Your task to perform on an android device: Open Youtube and go to "Your channel" Image 0: 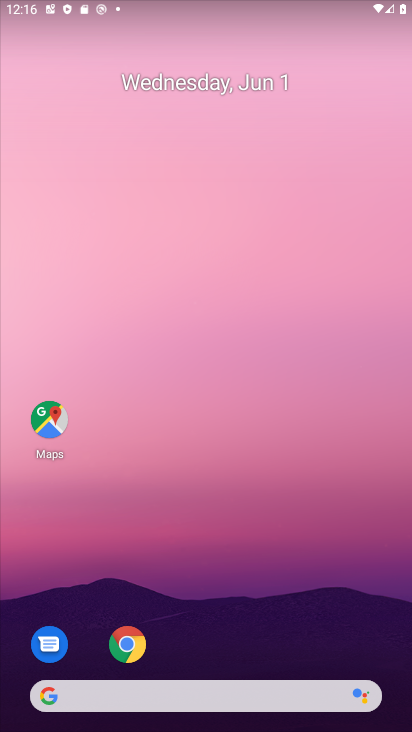
Step 0: drag from (341, 618) to (291, 206)
Your task to perform on an android device: Open Youtube and go to "Your channel" Image 1: 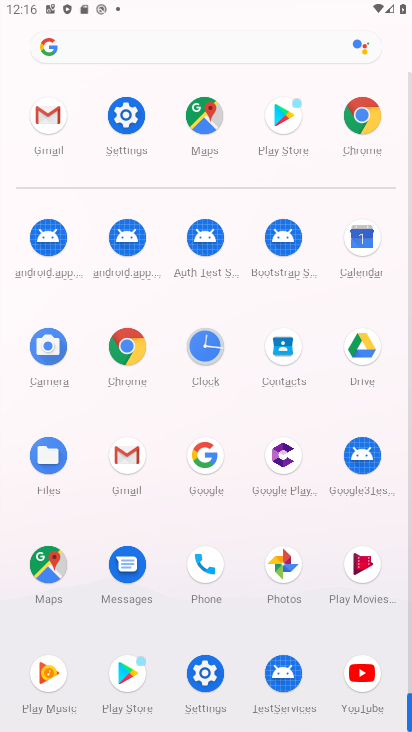
Step 1: click (353, 674)
Your task to perform on an android device: Open Youtube and go to "Your channel" Image 2: 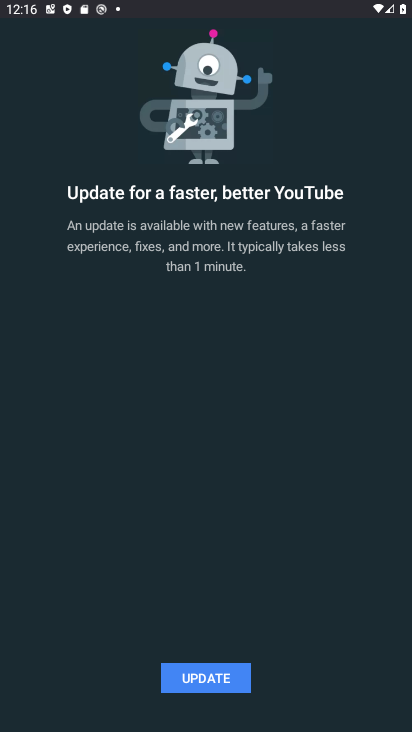
Step 2: click (234, 674)
Your task to perform on an android device: Open Youtube and go to "Your channel" Image 3: 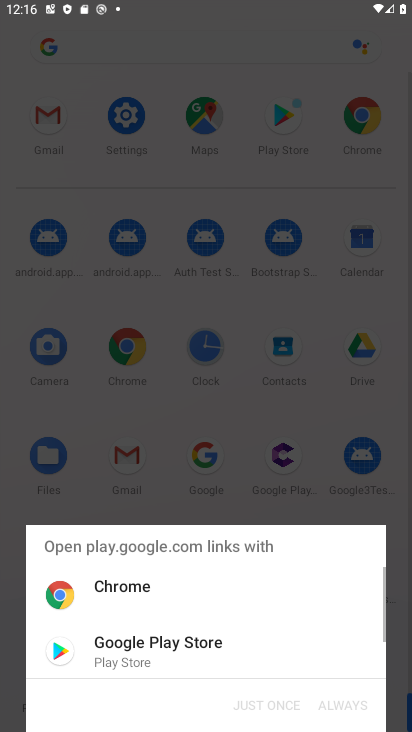
Step 3: click (139, 661)
Your task to perform on an android device: Open Youtube and go to "Your channel" Image 4: 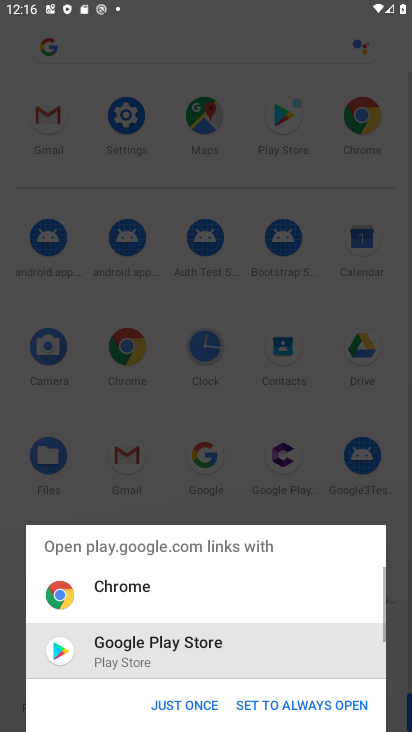
Step 4: click (168, 705)
Your task to perform on an android device: Open Youtube and go to "Your channel" Image 5: 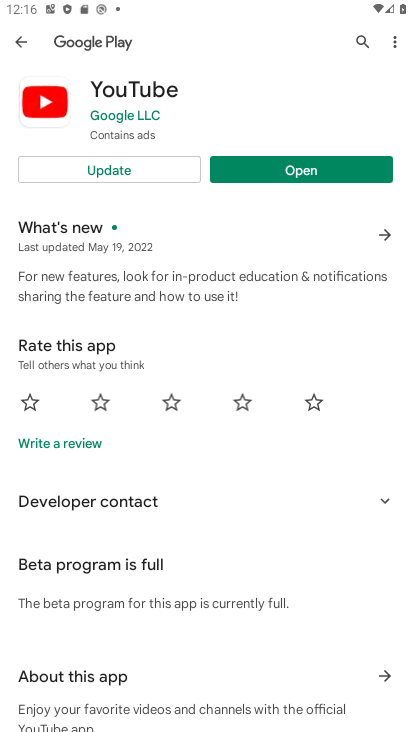
Step 5: click (141, 172)
Your task to perform on an android device: Open Youtube and go to "Your channel" Image 6: 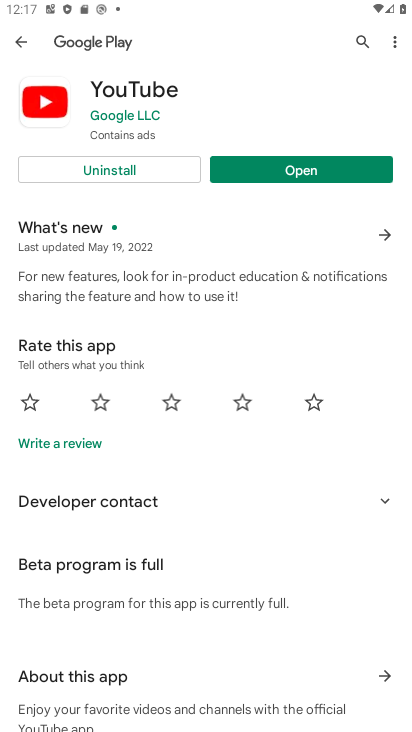
Step 6: click (298, 168)
Your task to perform on an android device: Open Youtube and go to "Your channel" Image 7: 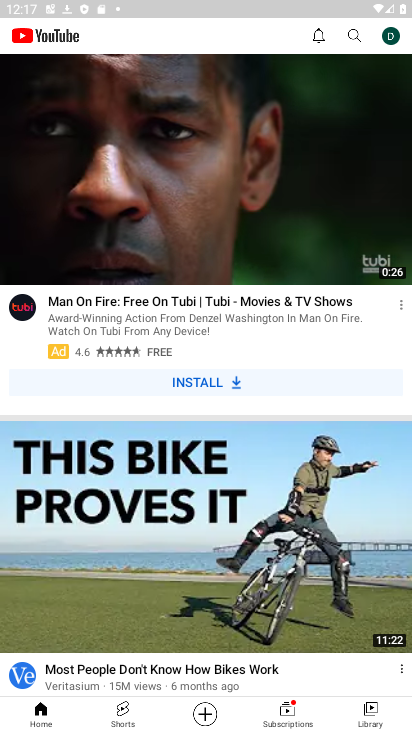
Step 7: click (391, 36)
Your task to perform on an android device: Open Youtube and go to "Your channel" Image 8: 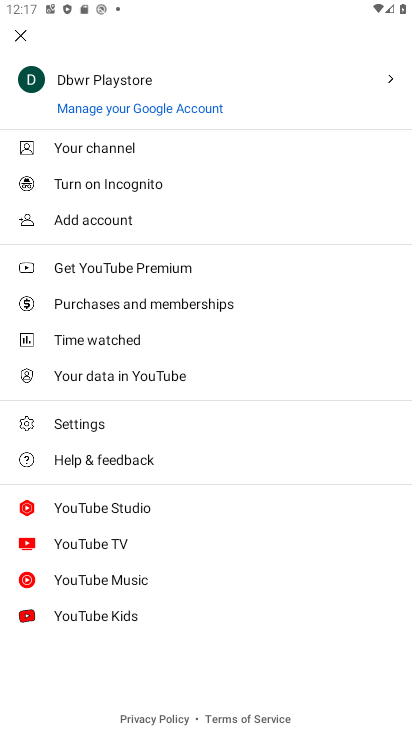
Step 8: click (153, 152)
Your task to perform on an android device: Open Youtube and go to "Your channel" Image 9: 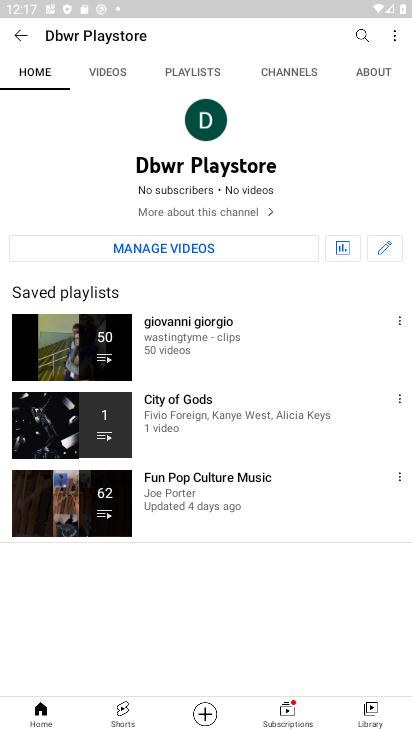
Step 9: task complete